Your task to perform on an android device: Go to calendar. Show me events next week Image 0: 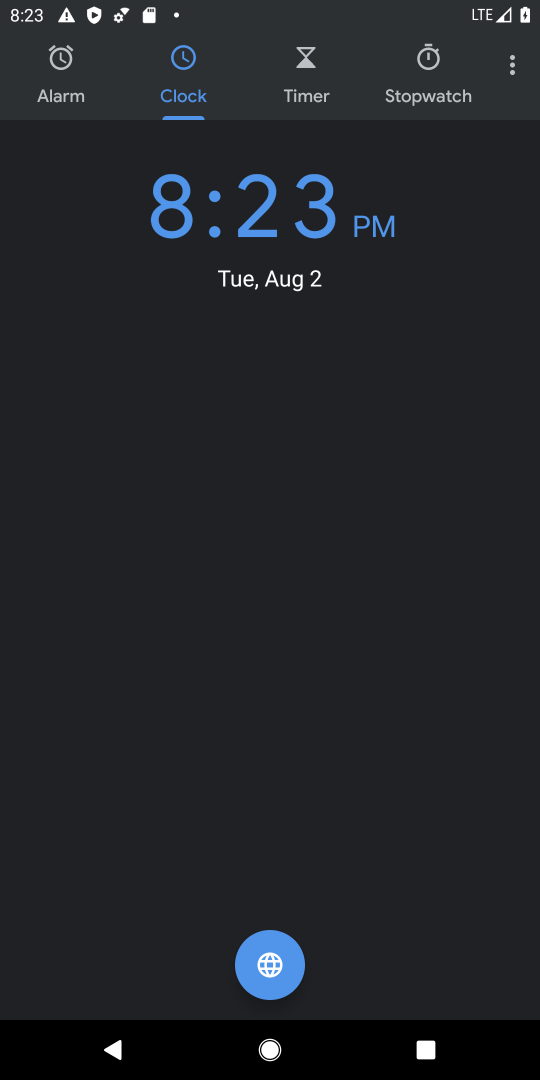
Step 0: press home button
Your task to perform on an android device: Go to calendar. Show me events next week Image 1: 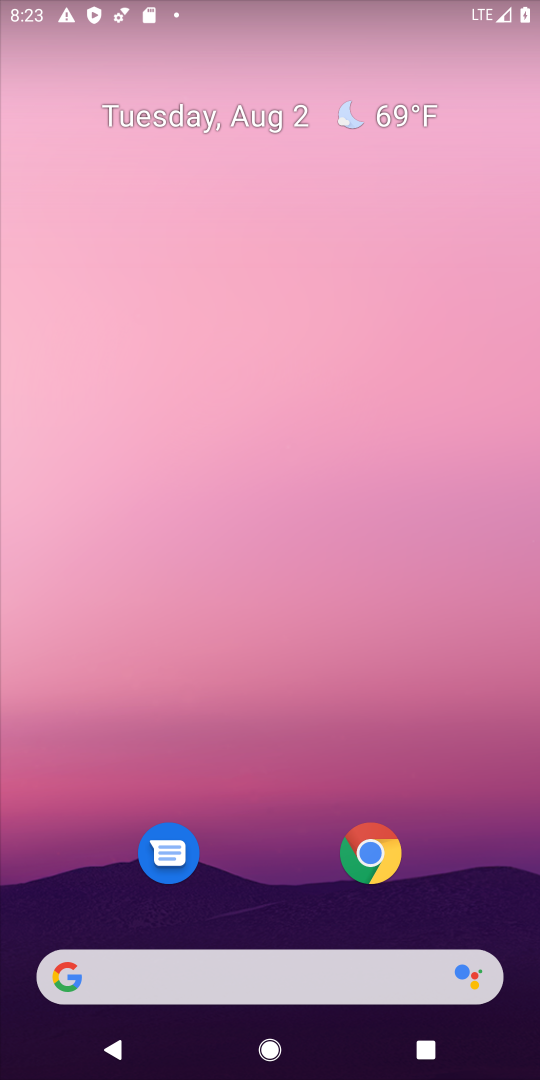
Step 1: drag from (224, 913) to (153, 52)
Your task to perform on an android device: Go to calendar. Show me events next week Image 2: 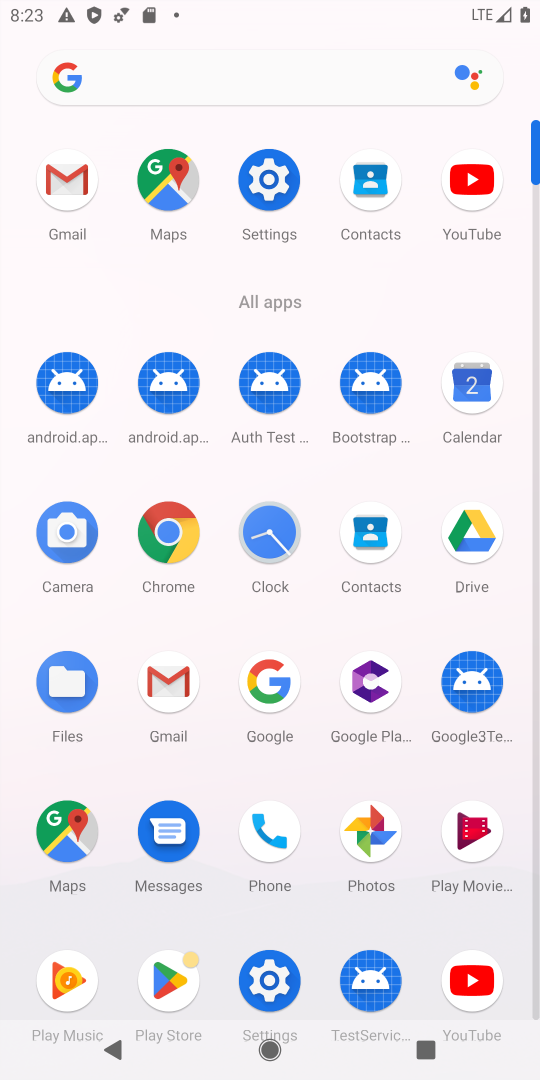
Step 2: click (476, 425)
Your task to perform on an android device: Go to calendar. Show me events next week Image 3: 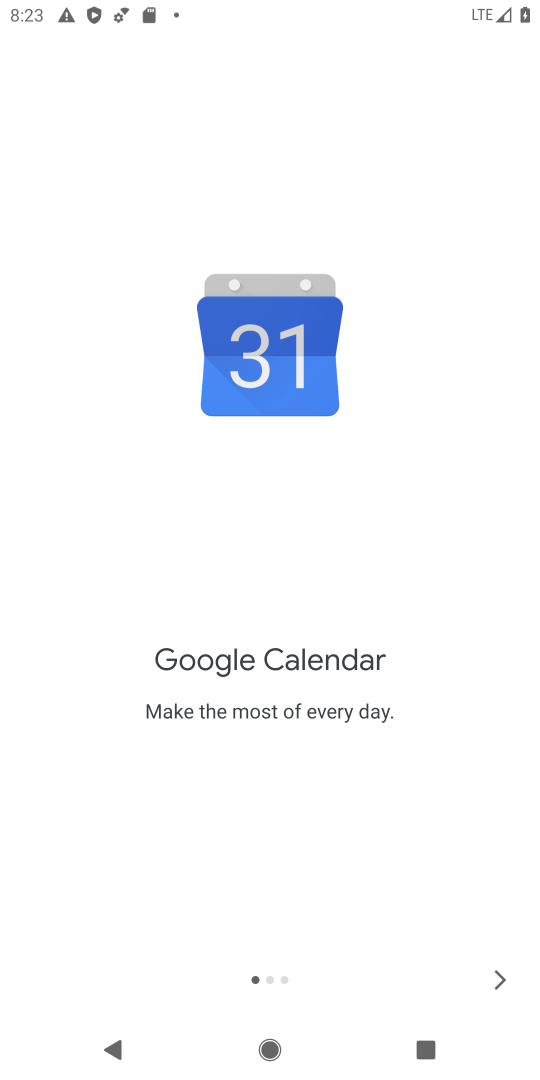
Step 3: click (487, 974)
Your task to perform on an android device: Go to calendar. Show me events next week Image 4: 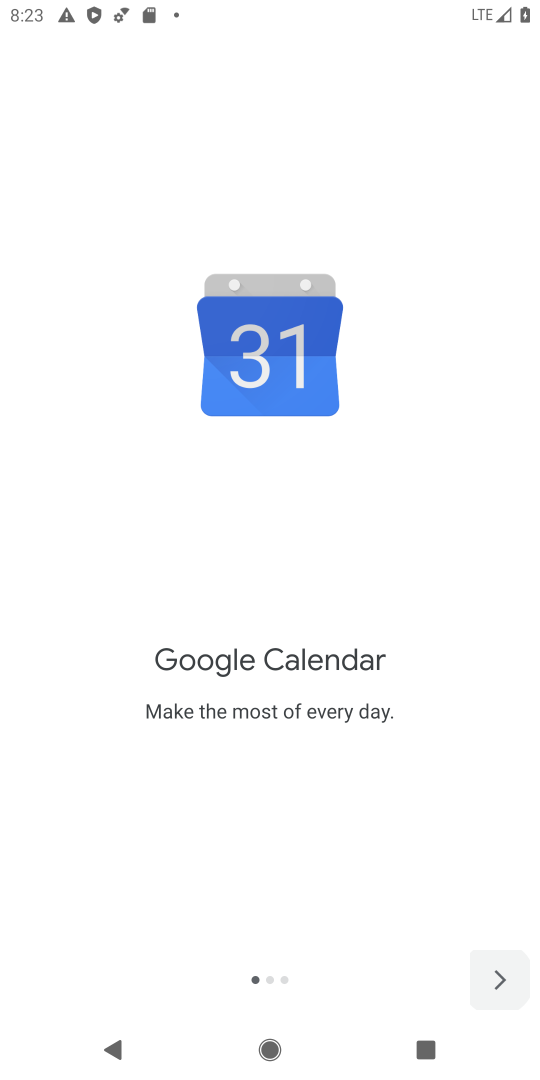
Step 4: click (487, 974)
Your task to perform on an android device: Go to calendar. Show me events next week Image 5: 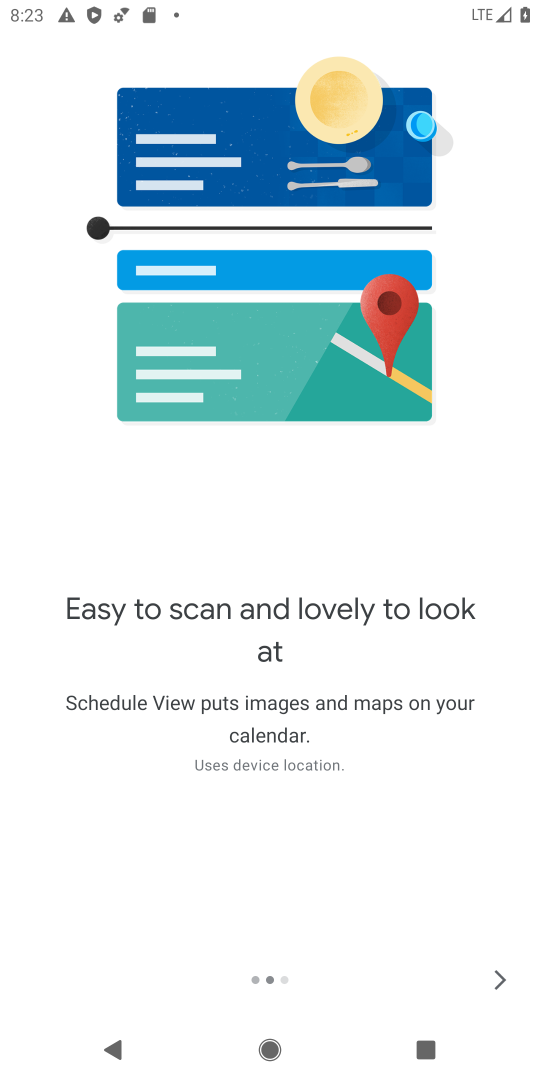
Step 5: click (487, 974)
Your task to perform on an android device: Go to calendar. Show me events next week Image 6: 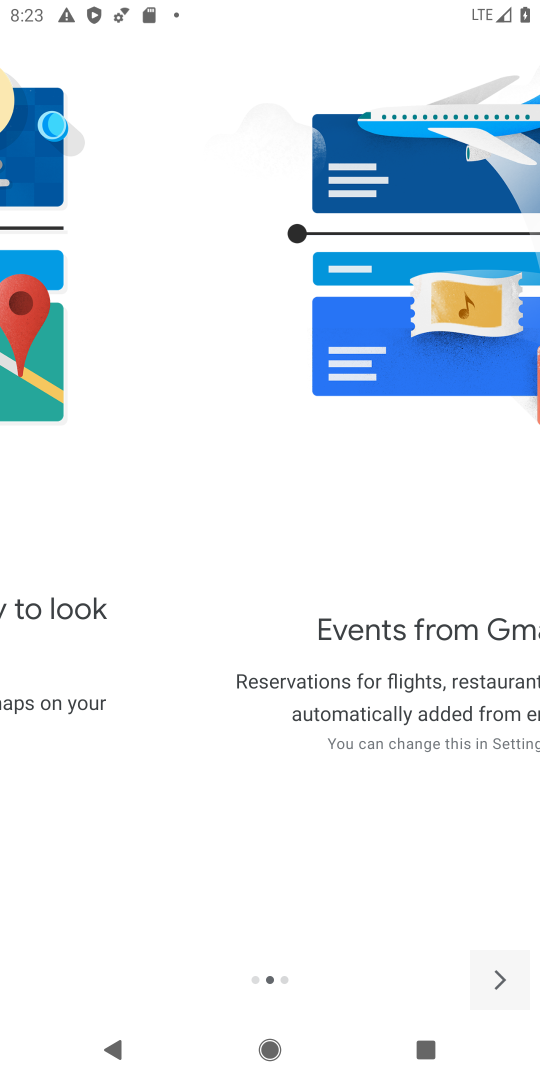
Step 6: click (487, 974)
Your task to perform on an android device: Go to calendar. Show me events next week Image 7: 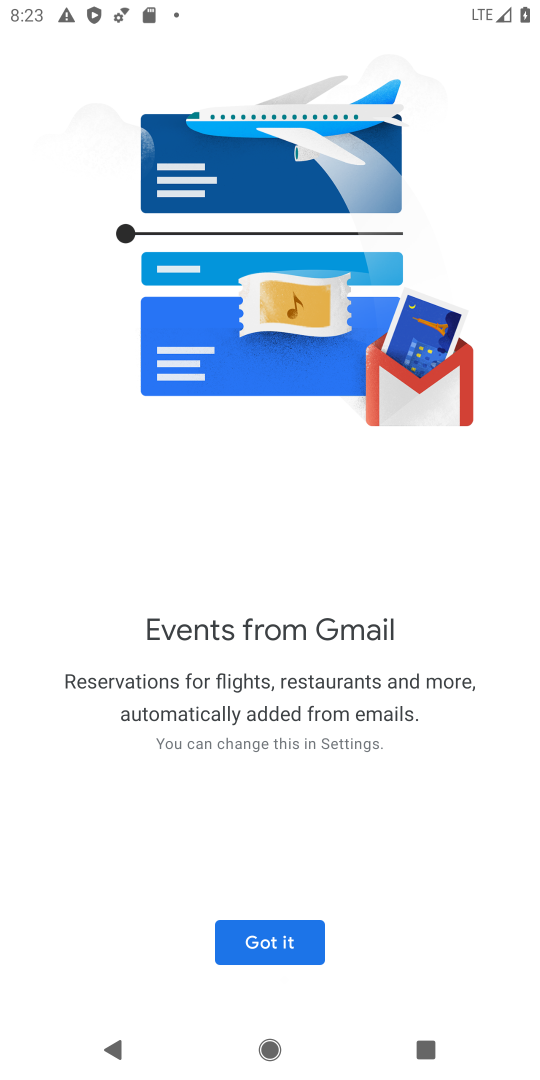
Step 7: click (487, 974)
Your task to perform on an android device: Go to calendar. Show me events next week Image 8: 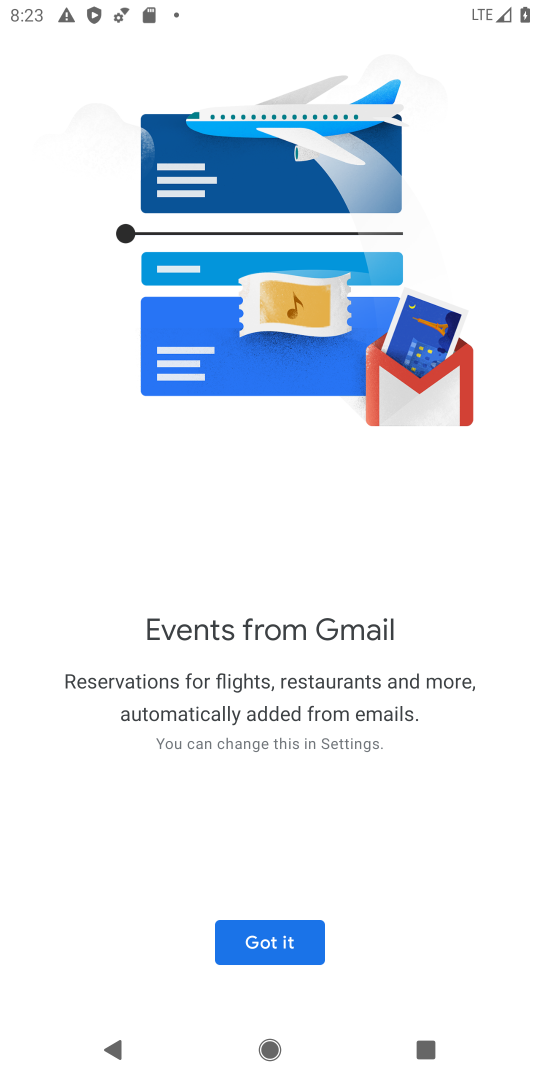
Step 8: click (301, 952)
Your task to perform on an android device: Go to calendar. Show me events next week Image 9: 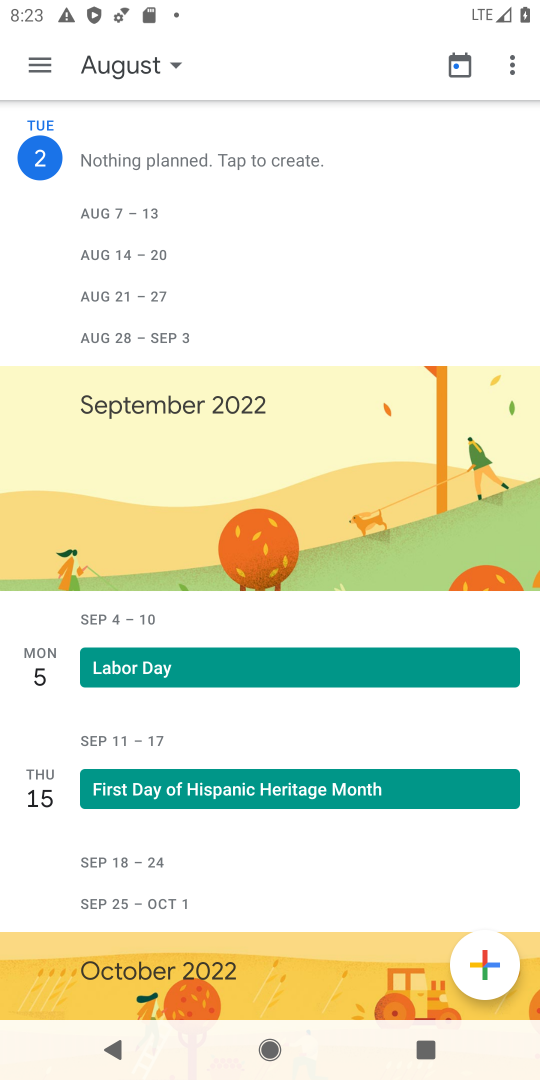
Step 9: click (166, 60)
Your task to perform on an android device: Go to calendar. Show me events next week Image 10: 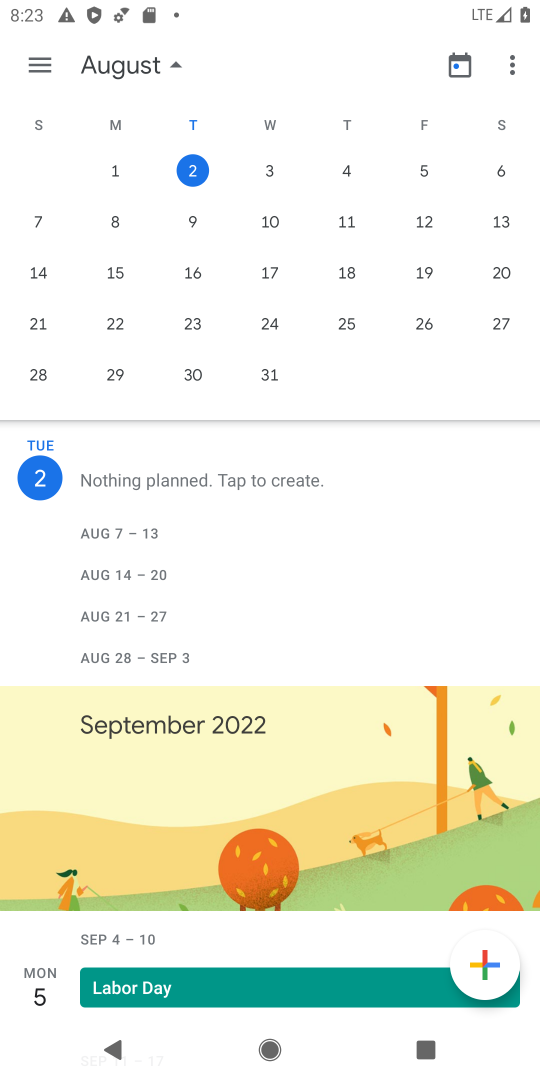
Step 10: click (30, 57)
Your task to perform on an android device: Go to calendar. Show me events next week Image 11: 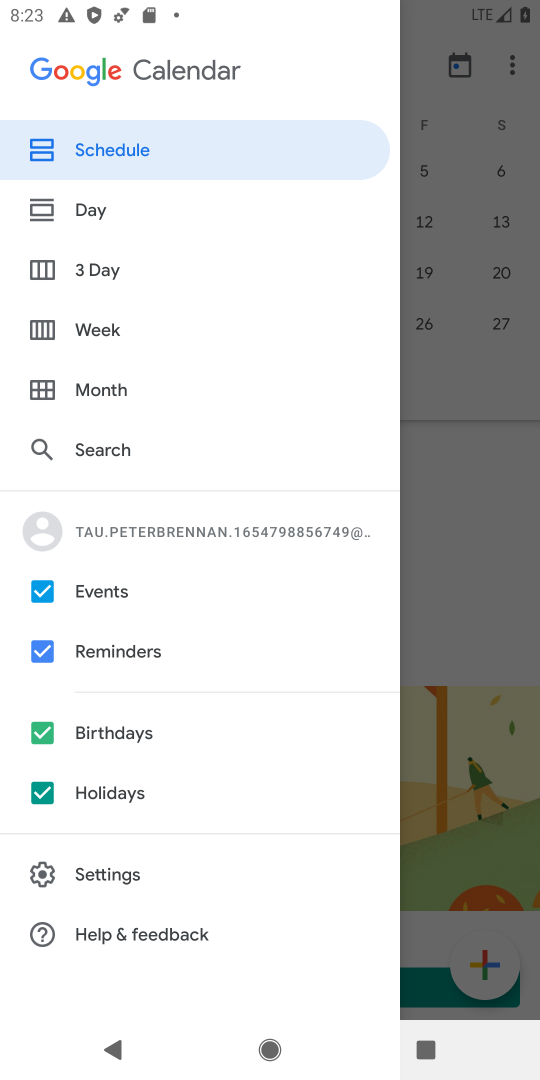
Step 11: click (91, 328)
Your task to perform on an android device: Go to calendar. Show me events next week Image 12: 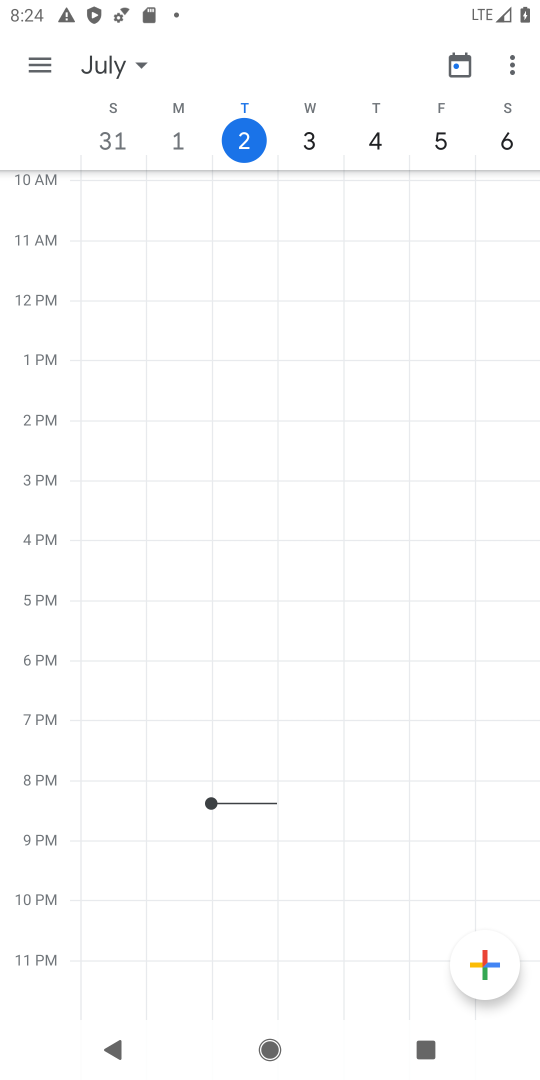
Step 12: drag from (473, 122) to (54, 131)
Your task to perform on an android device: Go to calendar. Show me events next week Image 13: 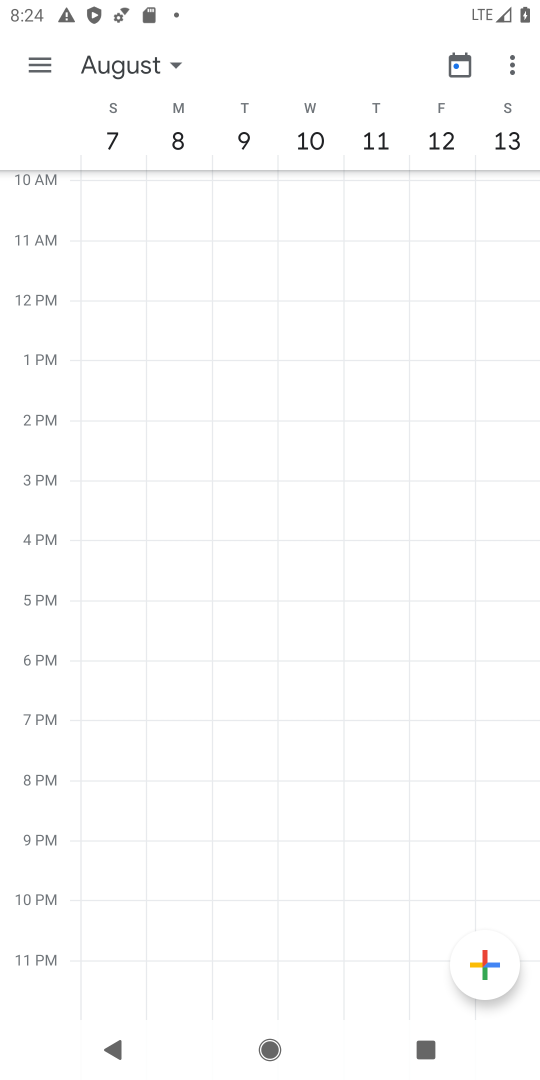
Step 13: drag from (350, 586) to (288, 234)
Your task to perform on an android device: Go to calendar. Show me events next week Image 14: 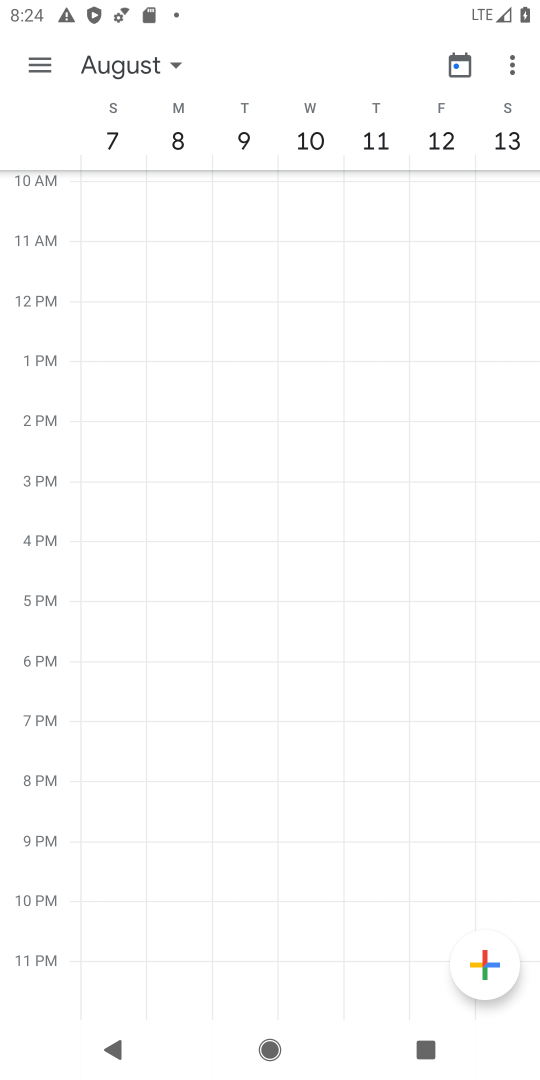
Step 14: drag from (320, 948) to (266, 960)
Your task to perform on an android device: Go to calendar. Show me events next week Image 15: 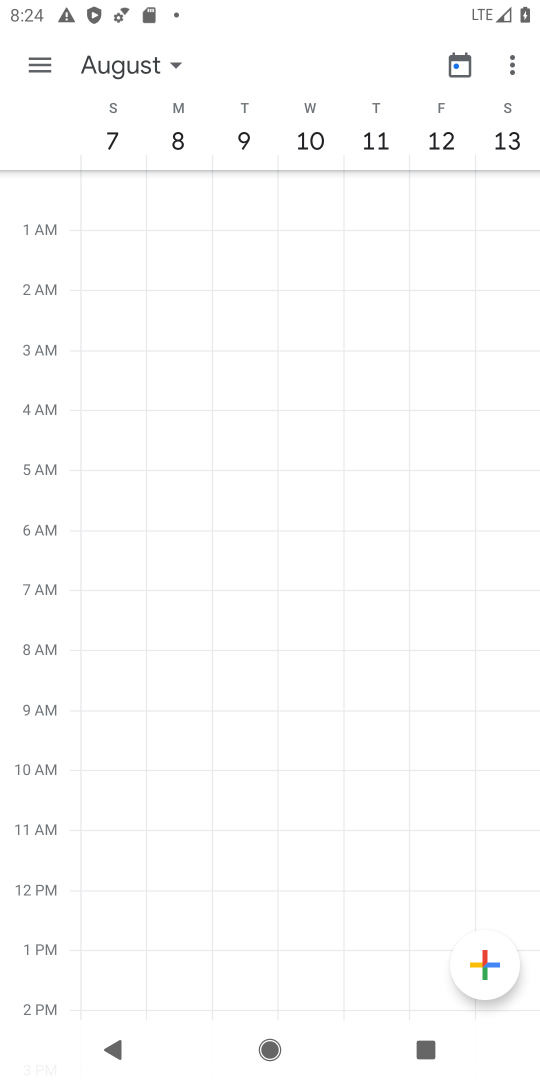
Step 15: click (43, 58)
Your task to perform on an android device: Go to calendar. Show me events next week Image 16: 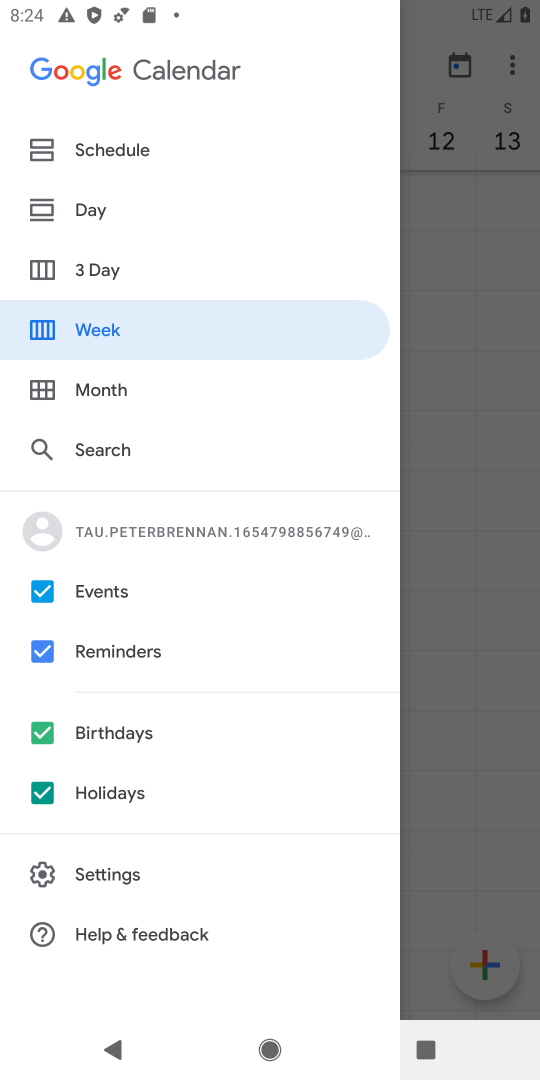
Step 16: click (469, 233)
Your task to perform on an android device: Go to calendar. Show me events next week Image 17: 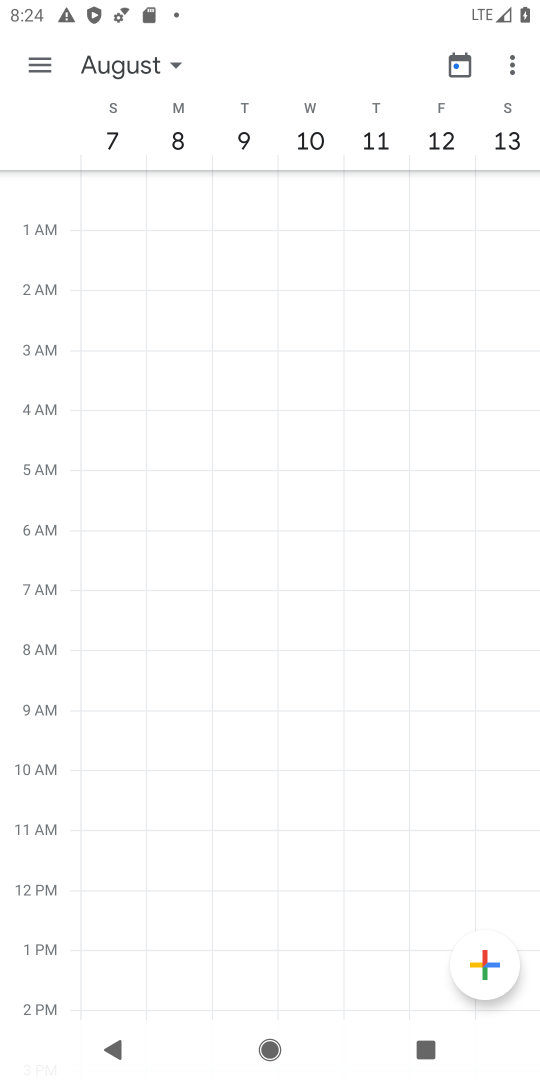
Step 17: task complete